Your task to perform on an android device: open chrome privacy settings Image 0: 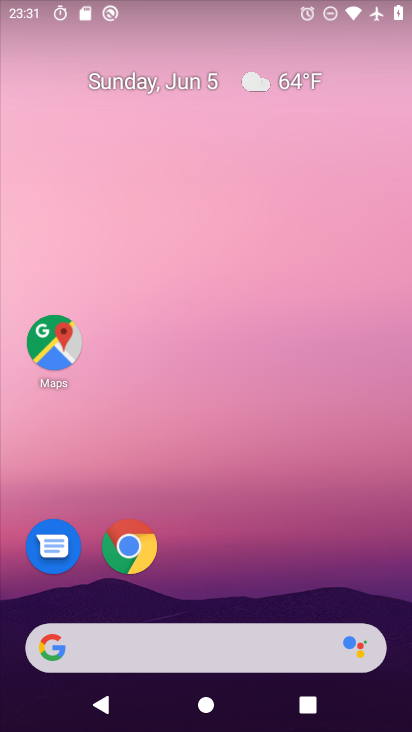
Step 0: drag from (197, 580) to (204, 12)
Your task to perform on an android device: open chrome privacy settings Image 1: 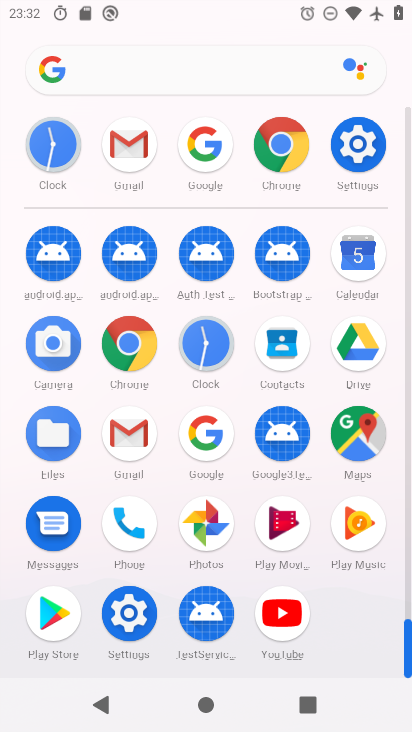
Step 1: click (291, 156)
Your task to perform on an android device: open chrome privacy settings Image 2: 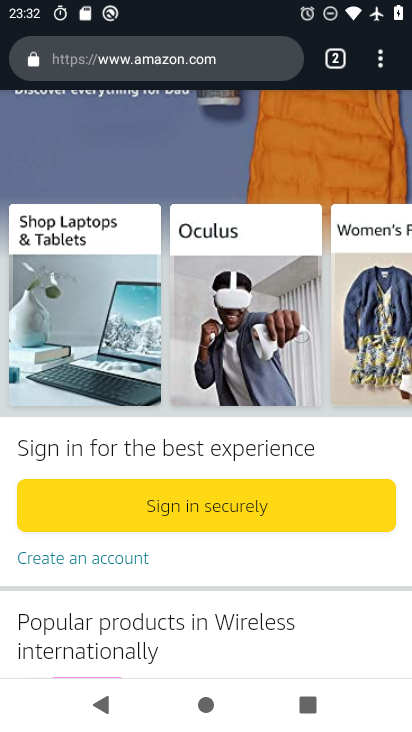
Step 2: click (375, 61)
Your task to perform on an android device: open chrome privacy settings Image 3: 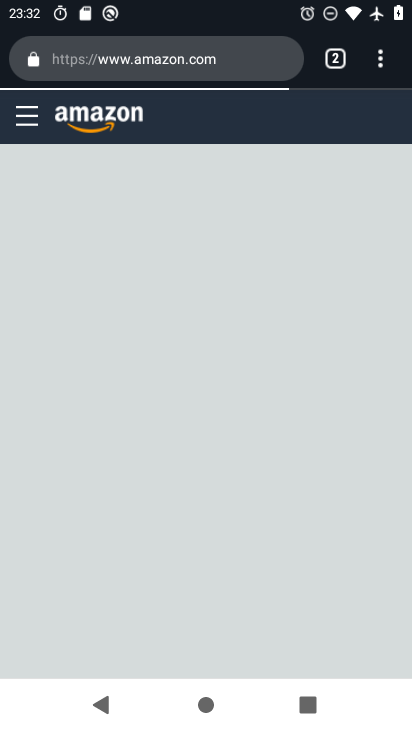
Step 3: click (378, 60)
Your task to perform on an android device: open chrome privacy settings Image 4: 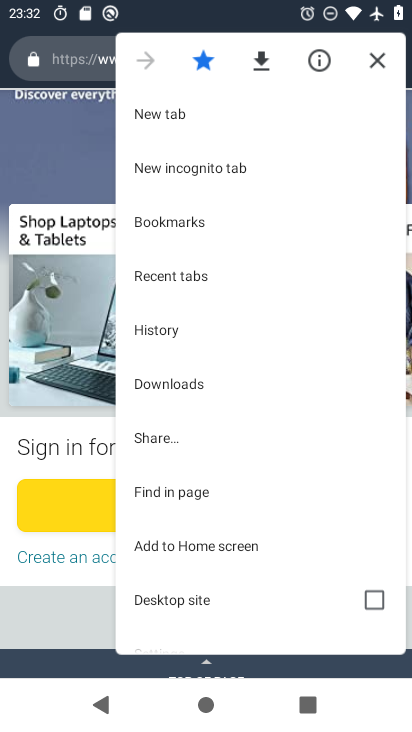
Step 4: drag from (182, 543) to (289, 192)
Your task to perform on an android device: open chrome privacy settings Image 5: 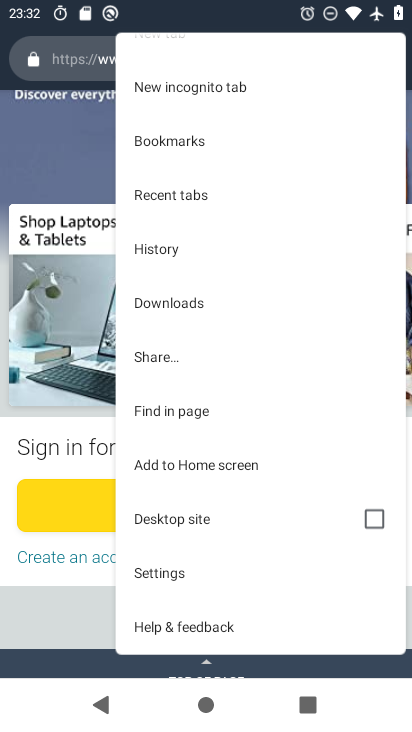
Step 5: click (193, 565)
Your task to perform on an android device: open chrome privacy settings Image 6: 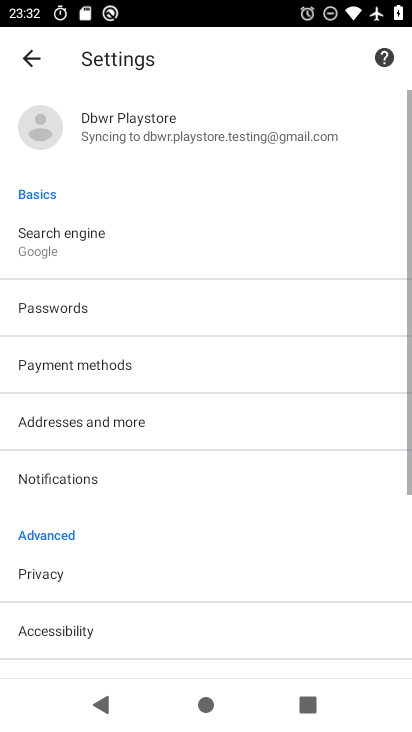
Step 6: drag from (244, 546) to (285, 177)
Your task to perform on an android device: open chrome privacy settings Image 7: 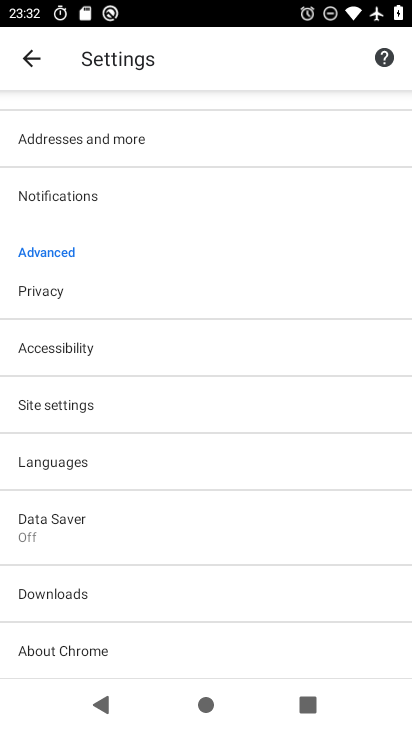
Step 7: drag from (156, 602) to (258, 247)
Your task to perform on an android device: open chrome privacy settings Image 8: 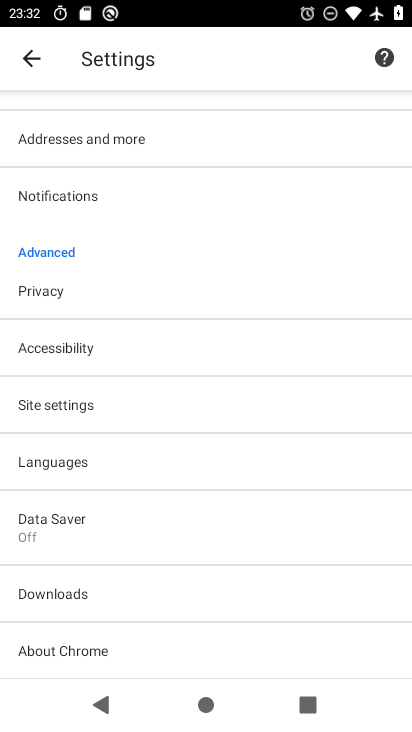
Step 8: drag from (139, 591) to (132, 216)
Your task to perform on an android device: open chrome privacy settings Image 9: 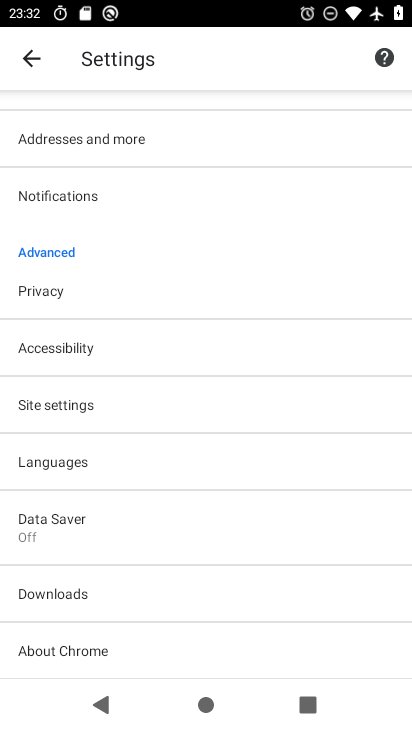
Step 9: click (122, 297)
Your task to perform on an android device: open chrome privacy settings Image 10: 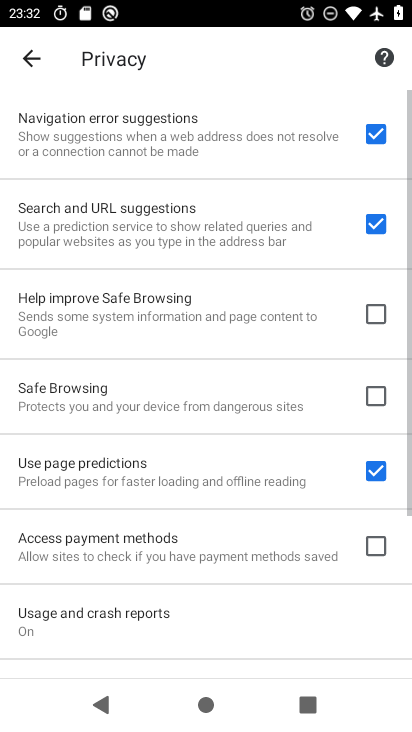
Step 10: task complete